Your task to perform on an android device: Check the news Image 0: 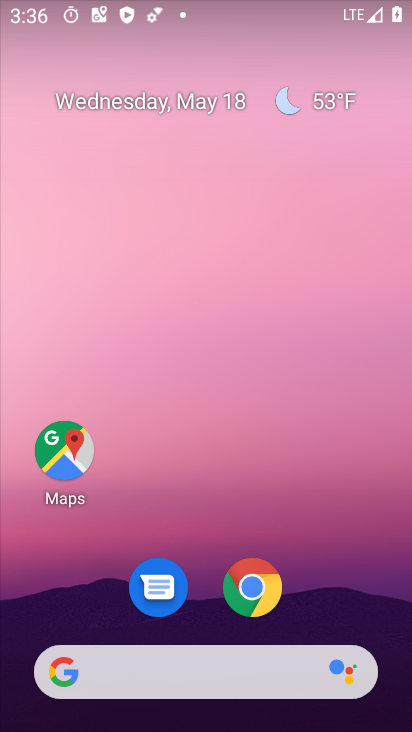
Step 0: drag from (216, 547) to (242, 156)
Your task to perform on an android device: Check the news Image 1: 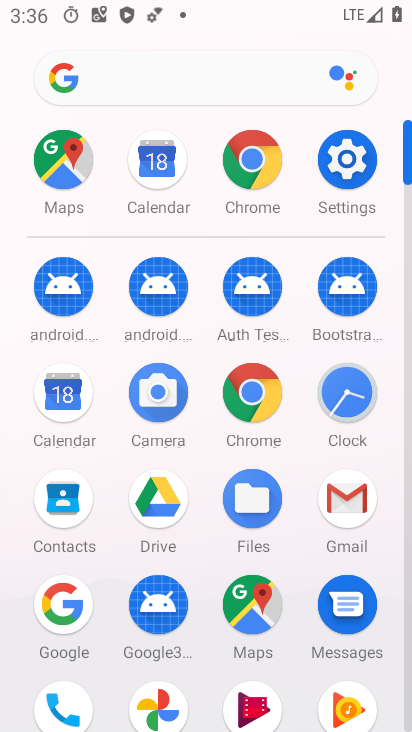
Step 1: drag from (219, 489) to (252, 280)
Your task to perform on an android device: Check the news Image 2: 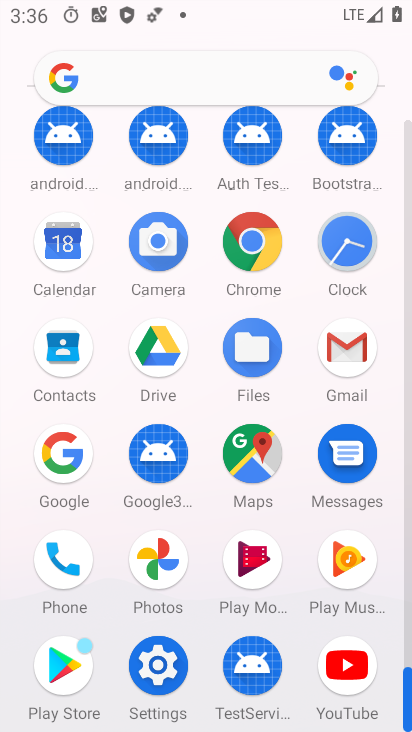
Step 2: click (72, 462)
Your task to perform on an android device: Check the news Image 3: 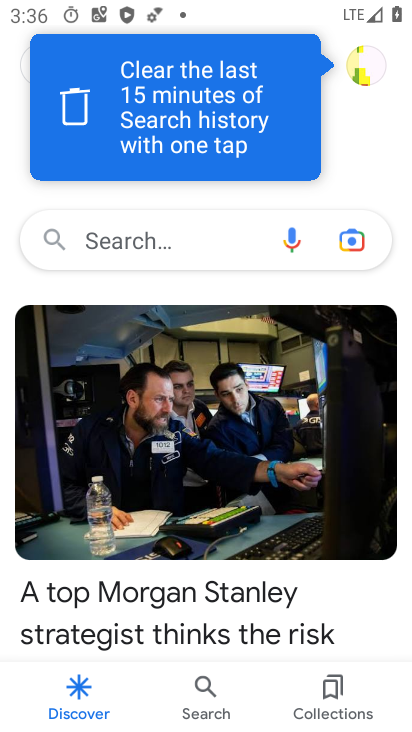
Step 3: click (179, 239)
Your task to perform on an android device: Check the news Image 4: 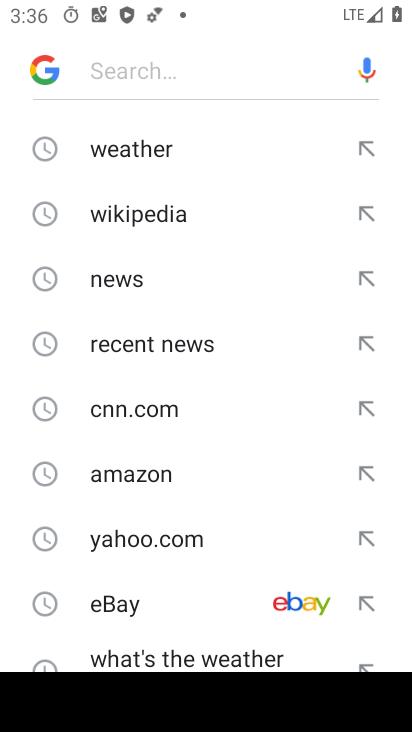
Step 4: click (148, 264)
Your task to perform on an android device: Check the news Image 5: 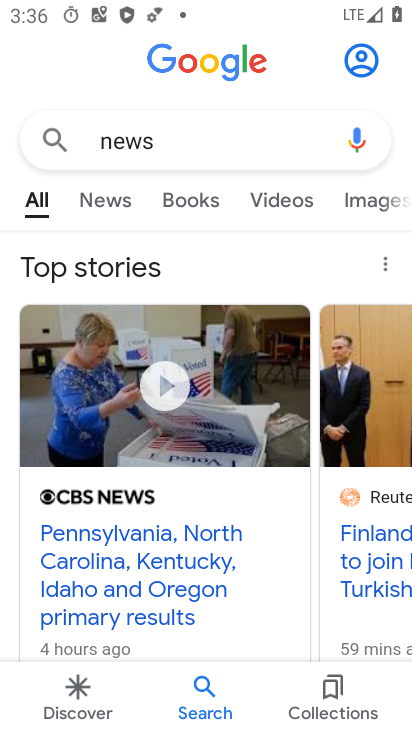
Step 5: task complete